Your task to perform on an android device: turn off airplane mode Image 0: 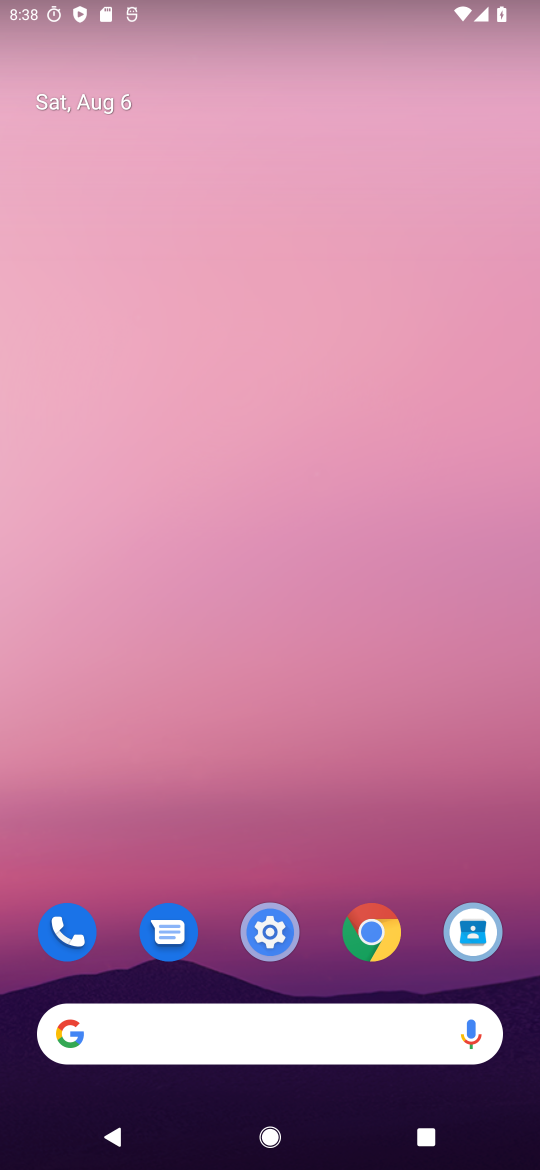
Step 0: drag from (319, 957) to (458, 186)
Your task to perform on an android device: turn off airplane mode Image 1: 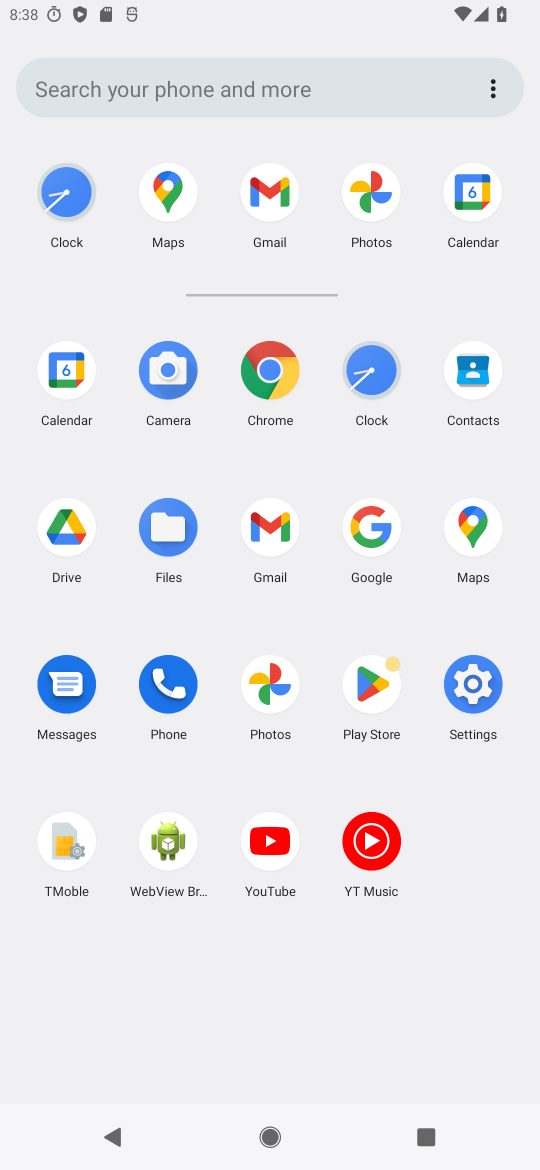
Step 1: click (469, 686)
Your task to perform on an android device: turn off airplane mode Image 2: 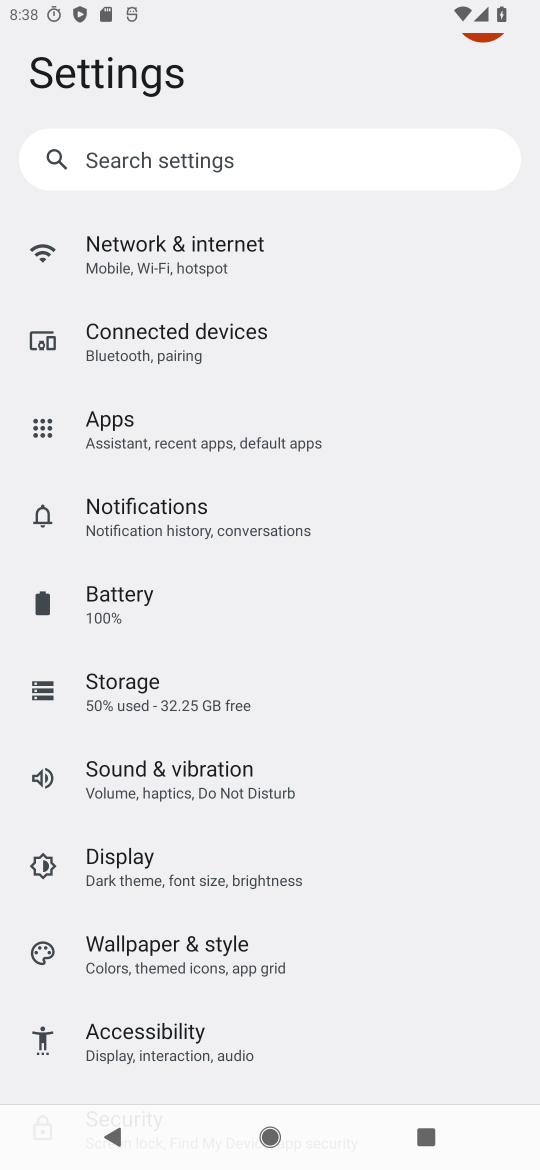
Step 2: click (188, 239)
Your task to perform on an android device: turn off airplane mode Image 3: 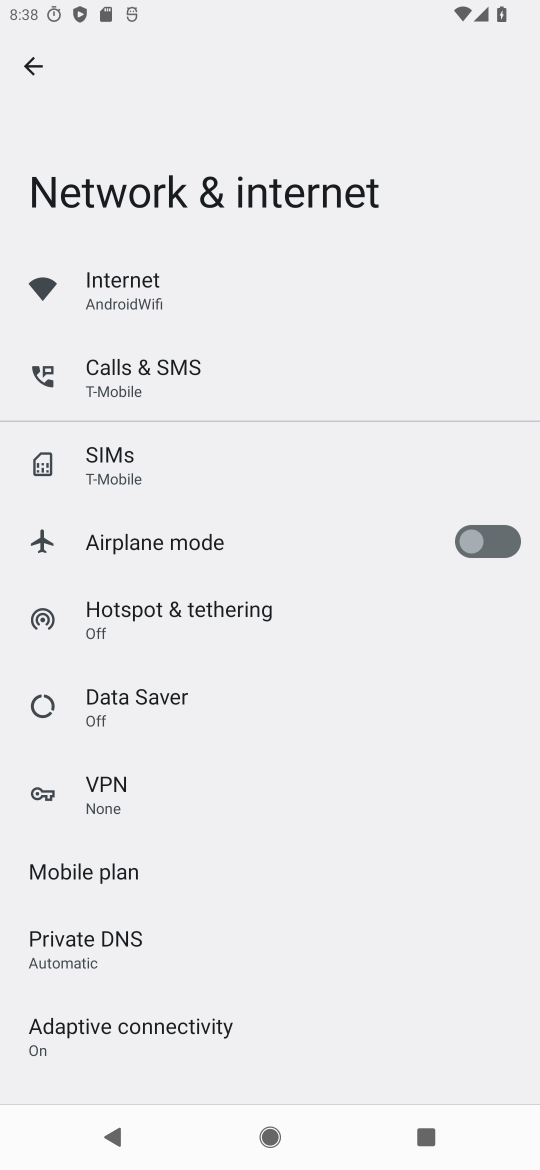
Step 3: task complete